Your task to perform on an android device: move an email to a new category in the gmail app Image 0: 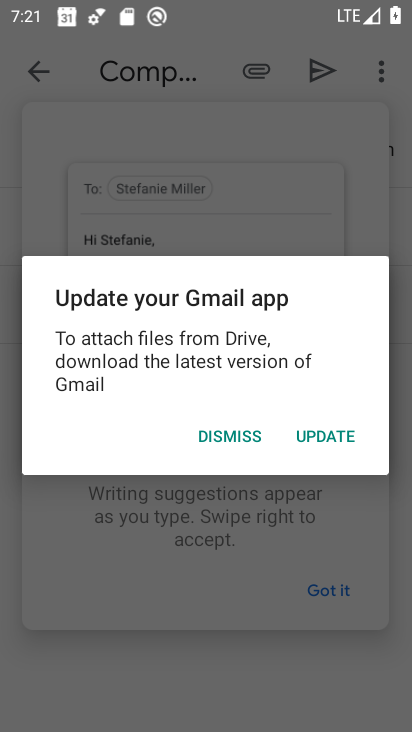
Step 0: press home button
Your task to perform on an android device: move an email to a new category in the gmail app Image 1: 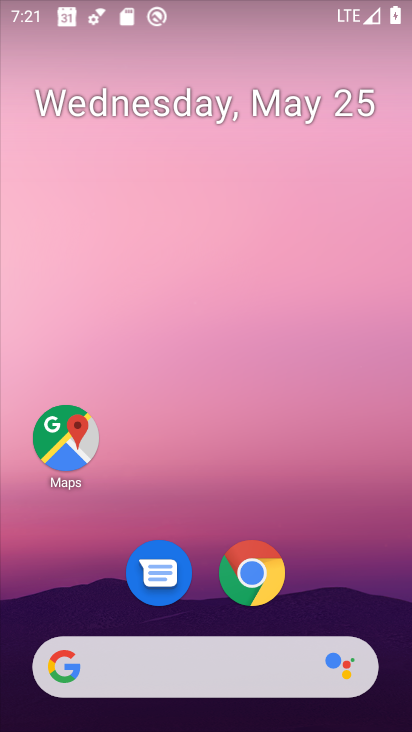
Step 1: drag from (396, 705) to (313, 229)
Your task to perform on an android device: move an email to a new category in the gmail app Image 2: 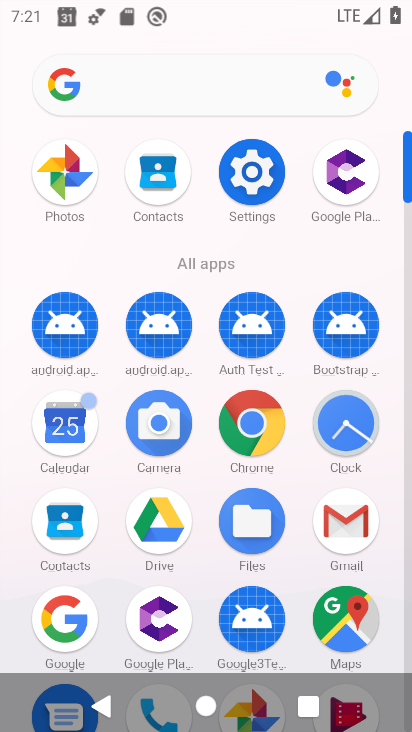
Step 2: click (355, 529)
Your task to perform on an android device: move an email to a new category in the gmail app Image 3: 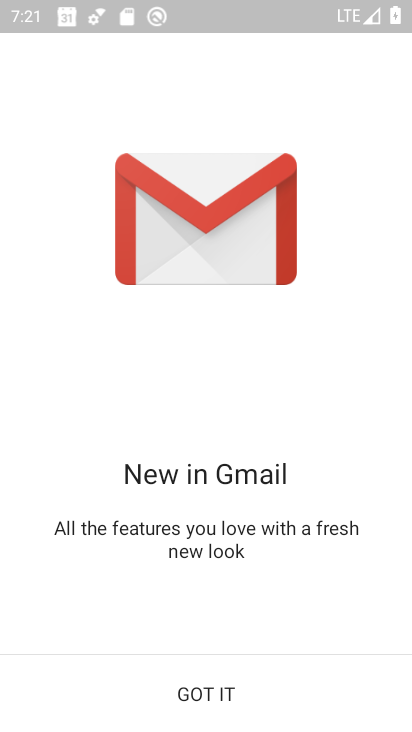
Step 3: click (210, 684)
Your task to perform on an android device: move an email to a new category in the gmail app Image 4: 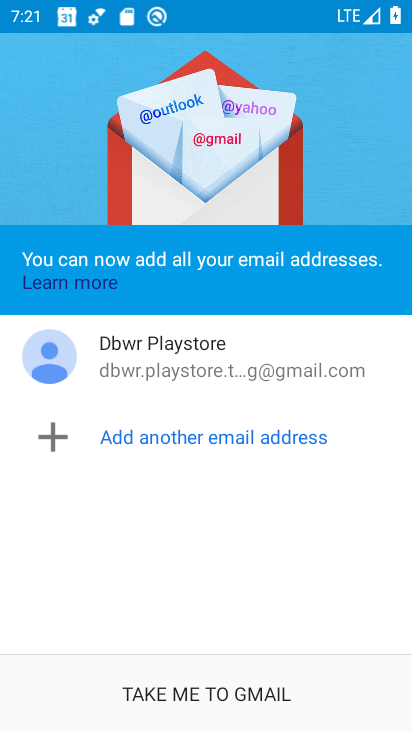
Step 4: click (212, 702)
Your task to perform on an android device: move an email to a new category in the gmail app Image 5: 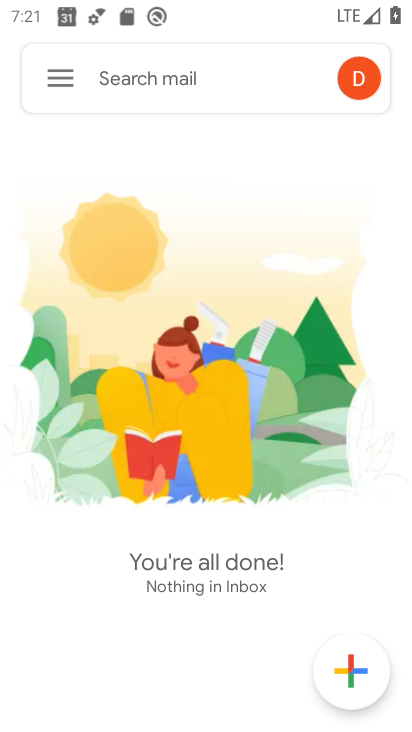
Step 5: click (60, 82)
Your task to perform on an android device: move an email to a new category in the gmail app Image 6: 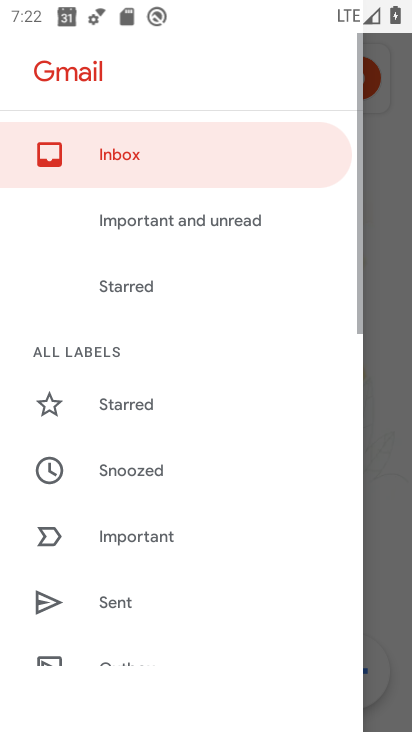
Step 6: click (92, 144)
Your task to perform on an android device: move an email to a new category in the gmail app Image 7: 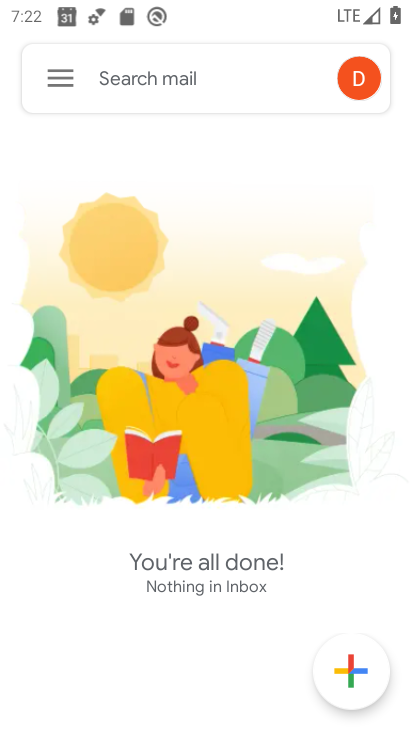
Step 7: task complete